Your task to perform on an android device: Open calendar and show me the first week of next month Image 0: 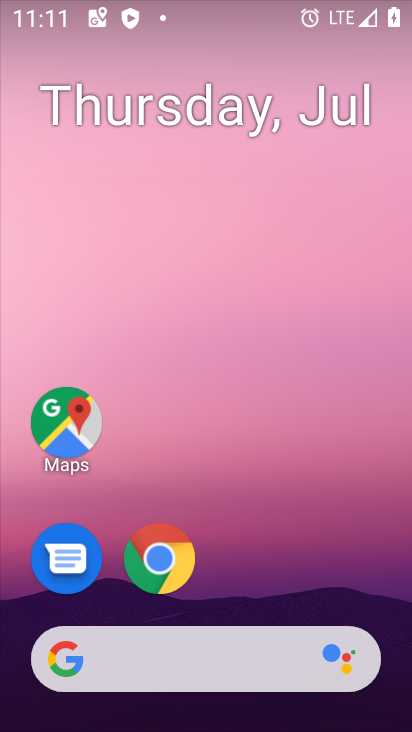
Step 0: drag from (375, 540) to (364, 114)
Your task to perform on an android device: Open calendar and show me the first week of next month Image 1: 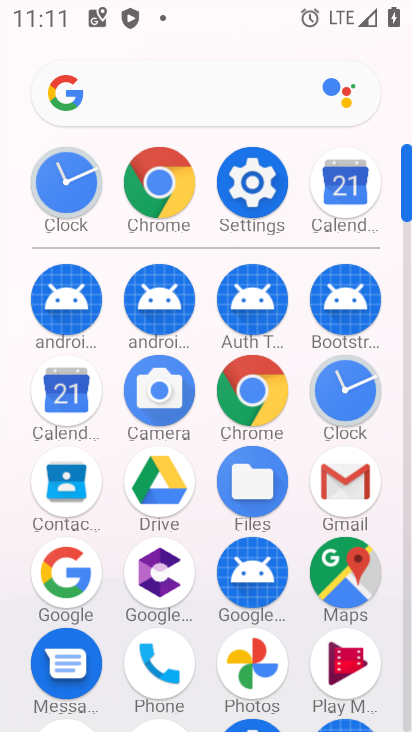
Step 1: click (72, 408)
Your task to perform on an android device: Open calendar and show me the first week of next month Image 2: 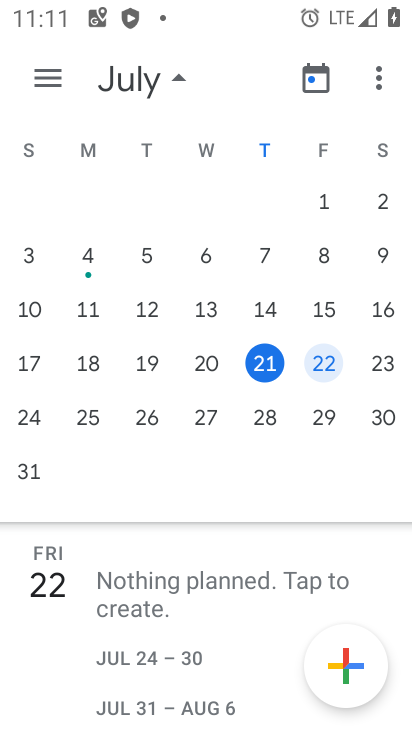
Step 2: task complete